Your task to perform on an android device: change alarm snooze length Image 0: 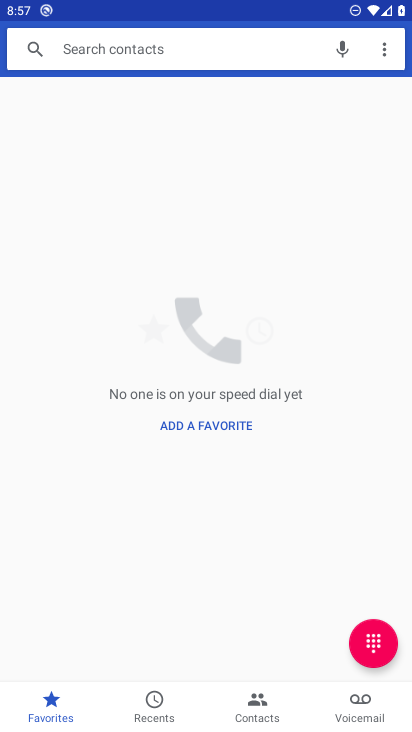
Step 0: press home button
Your task to perform on an android device: change alarm snooze length Image 1: 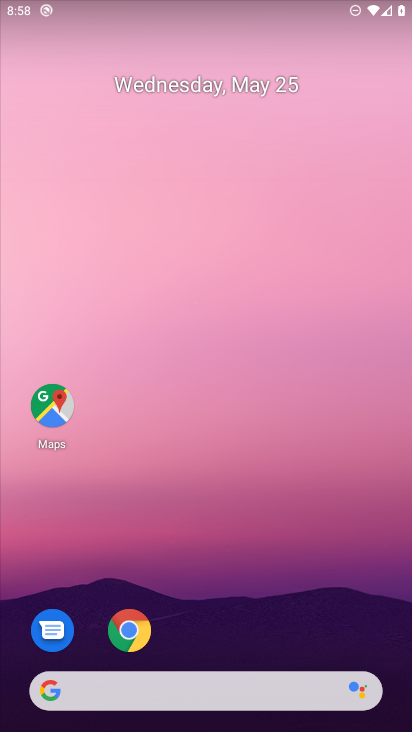
Step 1: drag from (243, 484) to (301, 214)
Your task to perform on an android device: change alarm snooze length Image 2: 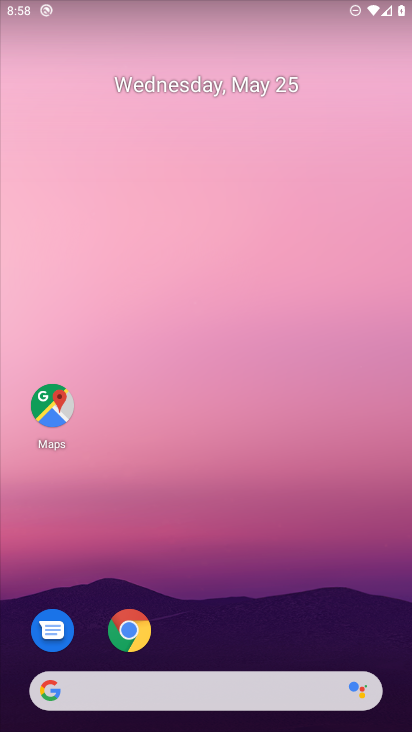
Step 2: drag from (242, 691) to (235, 202)
Your task to perform on an android device: change alarm snooze length Image 3: 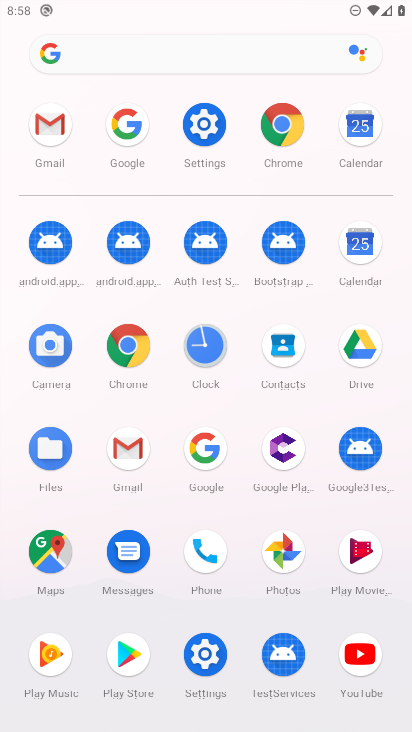
Step 3: click (204, 343)
Your task to perform on an android device: change alarm snooze length Image 4: 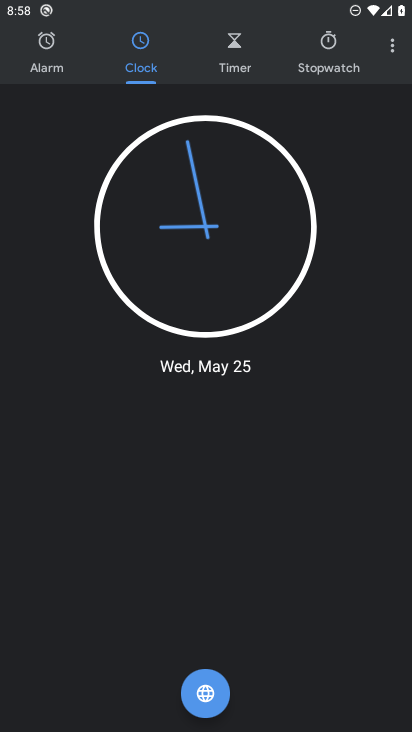
Step 4: click (387, 56)
Your task to perform on an android device: change alarm snooze length Image 5: 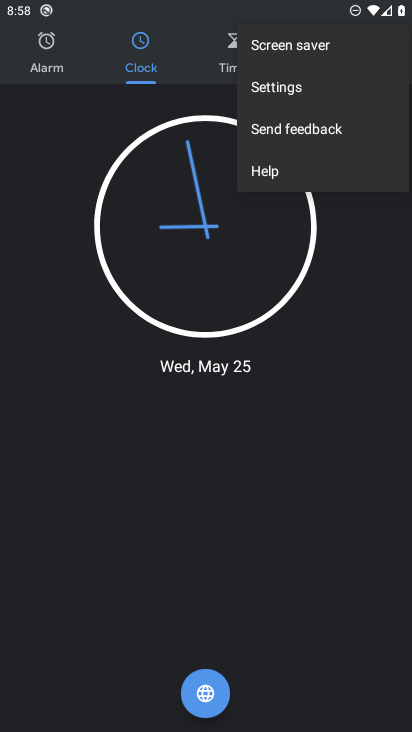
Step 5: click (290, 79)
Your task to perform on an android device: change alarm snooze length Image 6: 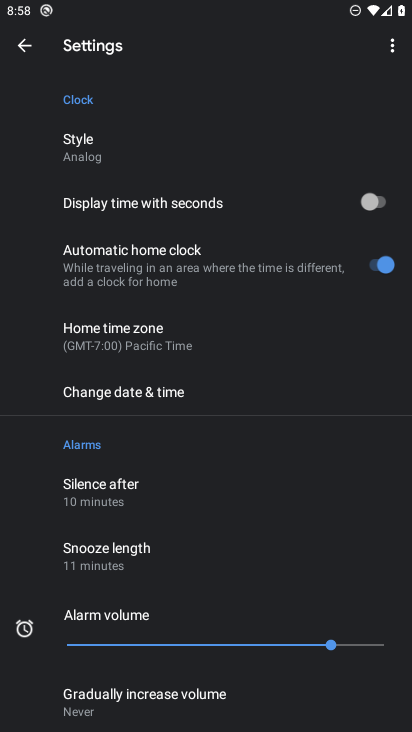
Step 6: click (125, 555)
Your task to perform on an android device: change alarm snooze length Image 7: 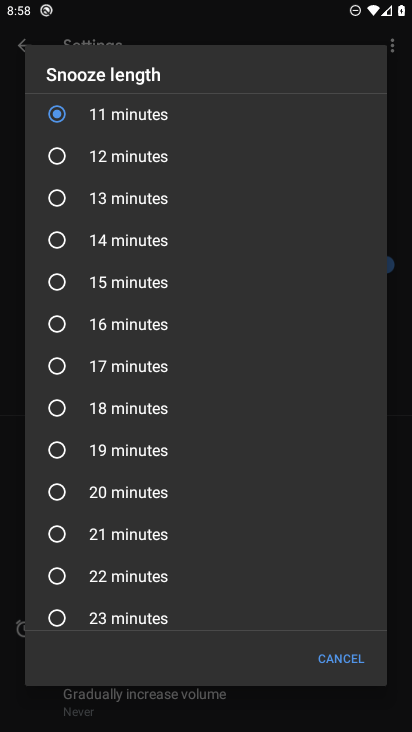
Step 7: click (92, 150)
Your task to perform on an android device: change alarm snooze length Image 8: 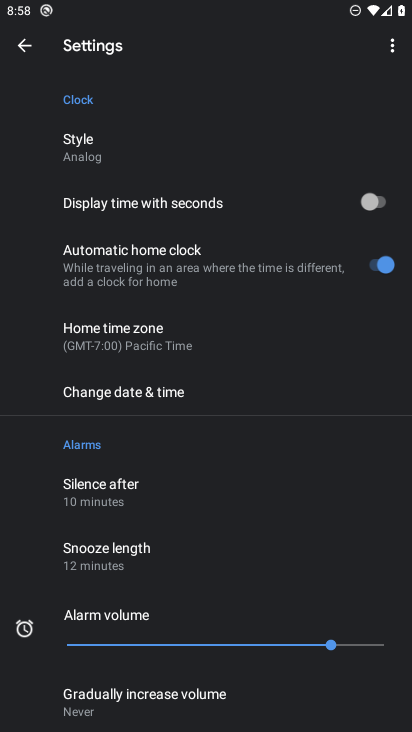
Step 8: task complete